Your task to perform on an android device: Clear the shopping cart on costco.com. Image 0: 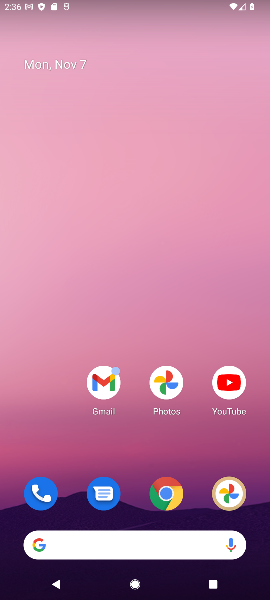
Step 0: press home button
Your task to perform on an android device: Clear the shopping cart on costco.com. Image 1: 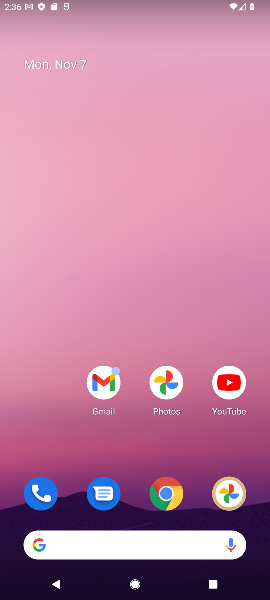
Step 1: drag from (140, 462) to (163, 8)
Your task to perform on an android device: Clear the shopping cart on costco.com. Image 2: 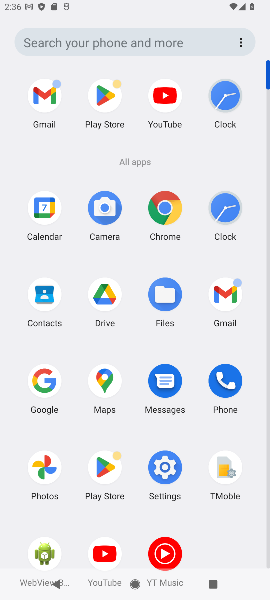
Step 2: click (164, 204)
Your task to perform on an android device: Clear the shopping cart on costco.com. Image 3: 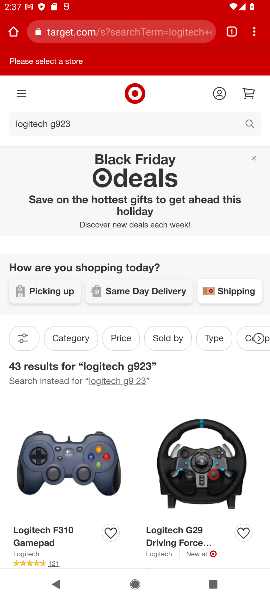
Step 3: click (85, 29)
Your task to perform on an android device: Clear the shopping cart on costco.com. Image 4: 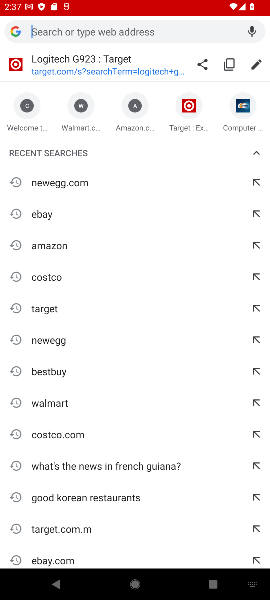
Step 4: type "costco.com"
Your task to perform on an android device: Clear the shopping cart on costco.com. Image 5: 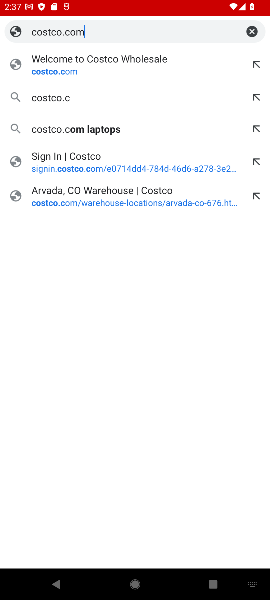
Step 5: type ""
Your task to perform on an android device: Clear the shopping cart on costco.com. Image 6: 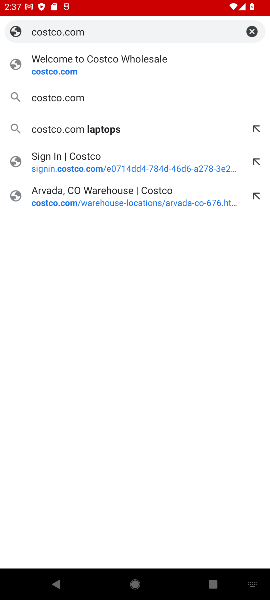
Step 6: click (82, 64)
Your task to perform on an android device: Clear the shopping cart on costco.com. Image 7: 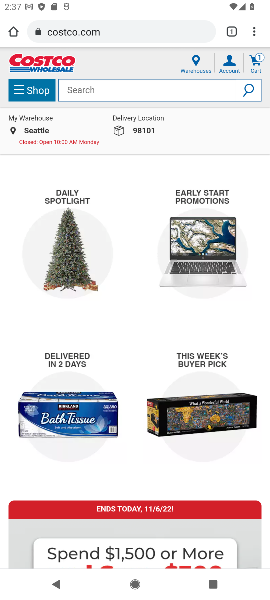
Step 7: click (252, 62)
Your task to perform on an android device: Clear the shopping cart on costco.com. Image 8: 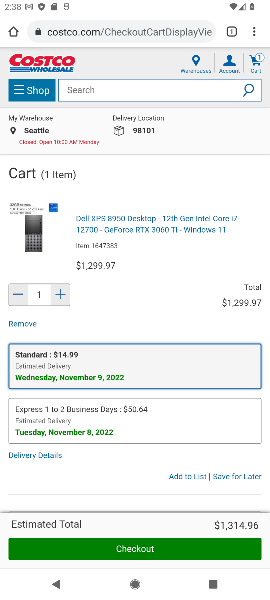
Step 8: click (24, 324)
Your task to perform on an android device: Clear the shopping cart on costco.com. Image 9: 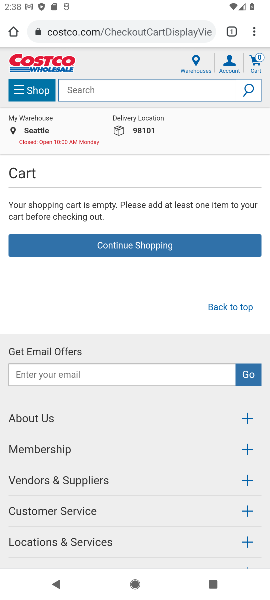
Step 9: task complete